Your task to perform on an android device: Open Yahoo.com Image 0: 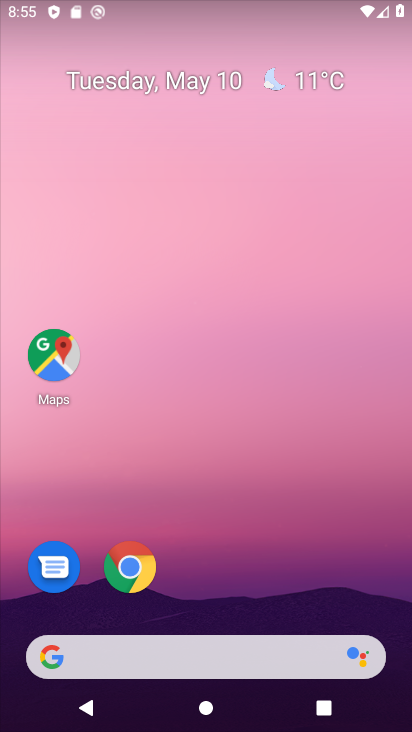
Step 0: click (135, 571)
Your task to perform on an android device: Open Yahoo.com Image 1: 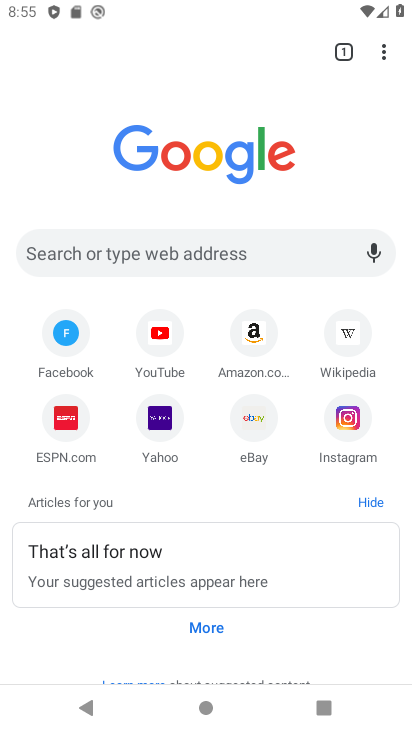
Step 1: click (163, 413)
Your task to perform on an android device: Open Yahoo.com Image 2: 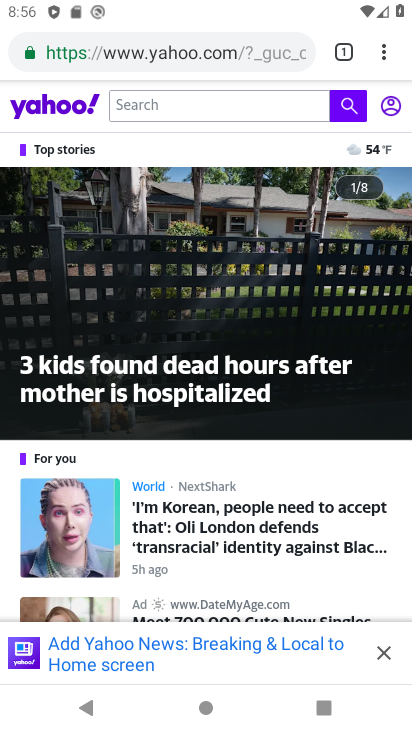
Step 2: task complete